Your task to perform on an android device: Clear the cart on ebay.com. Image 0: 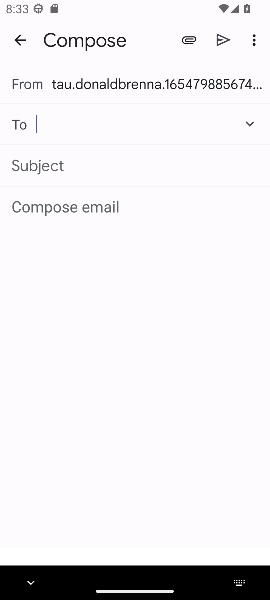
Step 0: press home button
Your task to perform on an android device: Clear the cart on ebay.com. Image 1: 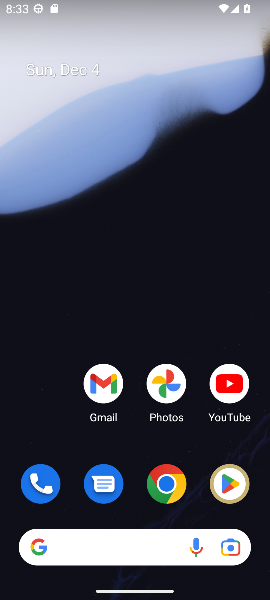
Step 1: click (169, 482)
Your task to perform on an android device: Clear the cart on ebay.com. Image 2: 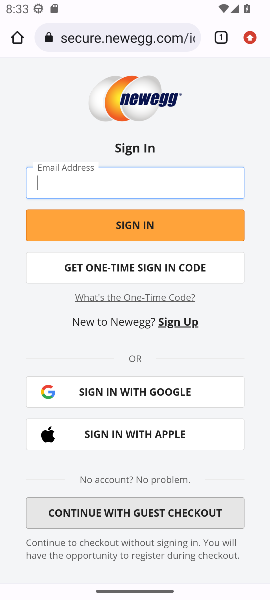
Step 2: click (108, 41)
Your task to perform on an android device: Clear the cart on ebay.com. Image 3: 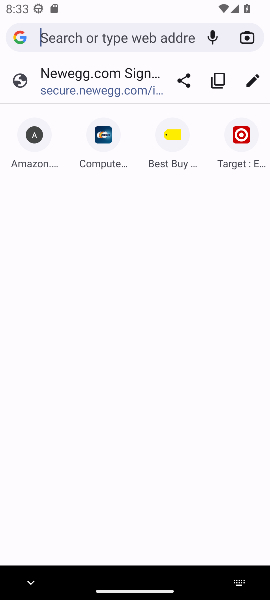
Step 3: type "ebay.com"
Your task to perform on an android device: Clear the cart on ebay.com. Image 4: 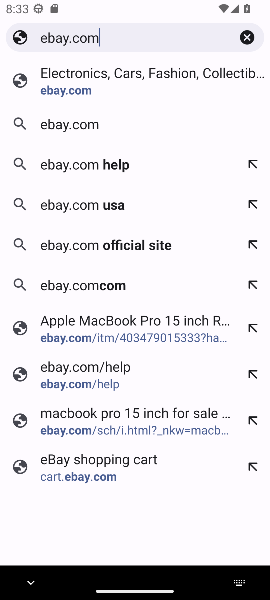
Step 4: click (54, 96)
Your task to perform on an android device: Clear the cart on ebay.com. Image 5: 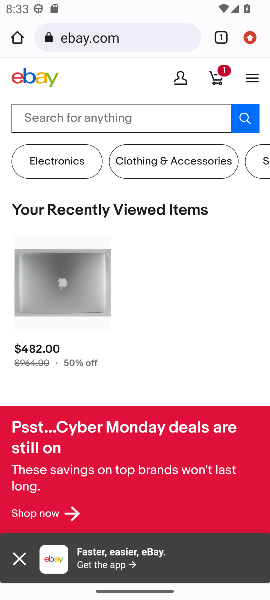
Step 5: click (219, 75)
Your task to perform on an android device: Clear the cart on ebay.com. Image 6: 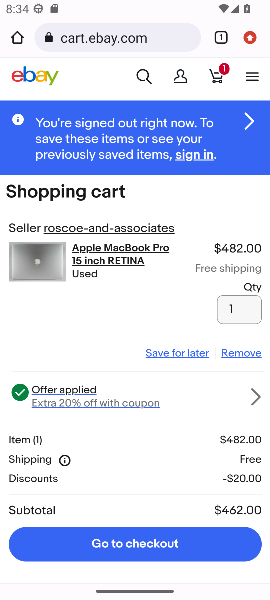
Step 6: click (241, 352)
Your task to perform on an android device: Clear the cart on ebay.com. Image 7: 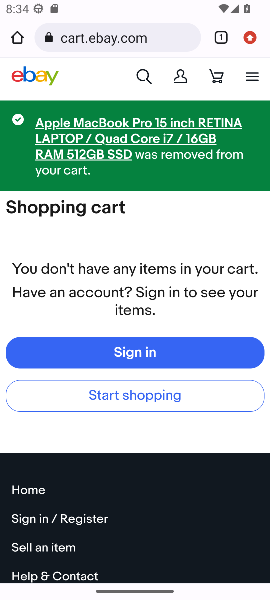
Step 7: task complete